Your task to perform on an android device: Do I have any events tomorrow? Image 0: 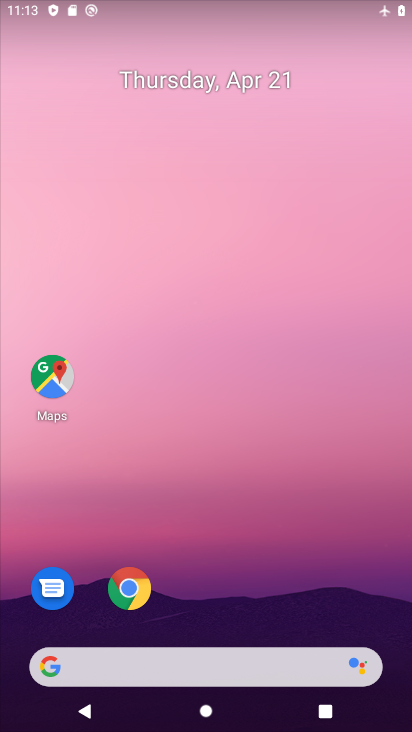
Step 0: drag from (203, 622) to (265, 71)
Your task to perform on an android device: Do I have any events tomorrow? Image 1: 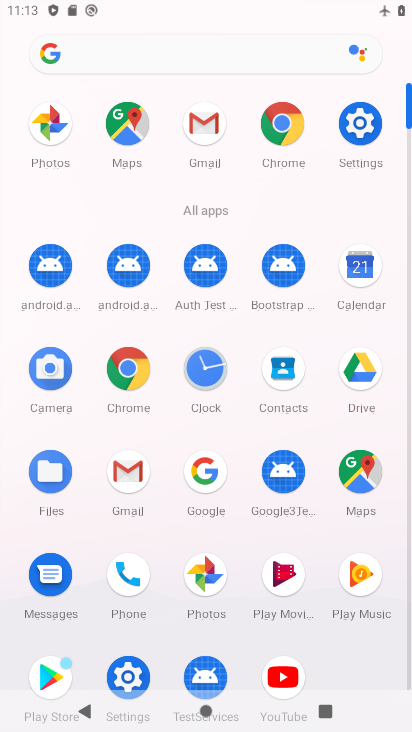
Step 1: click (353, 278)
Your task to perform on an android device: Do I have any events tomorrow? Image 2: 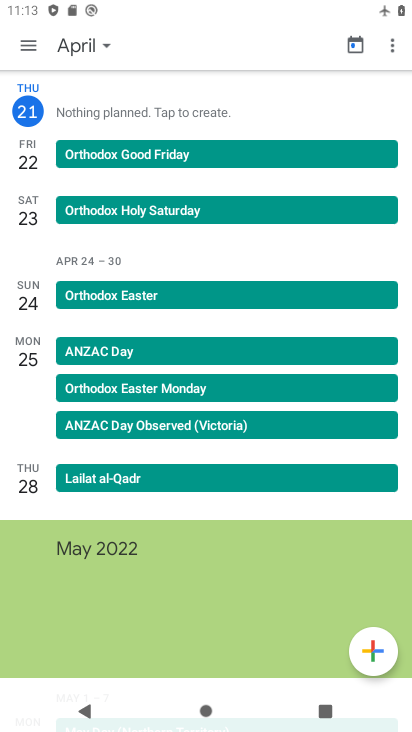
Step 2: click (23, 158)
Your task to perform on an android device: Do I have any events tomorrow? Image 3: 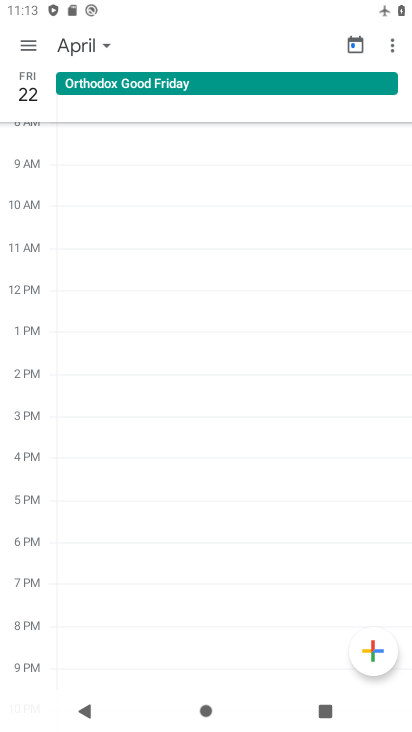
Step 3: task complete